Your task to perform on an android device: check google app version Image 0: 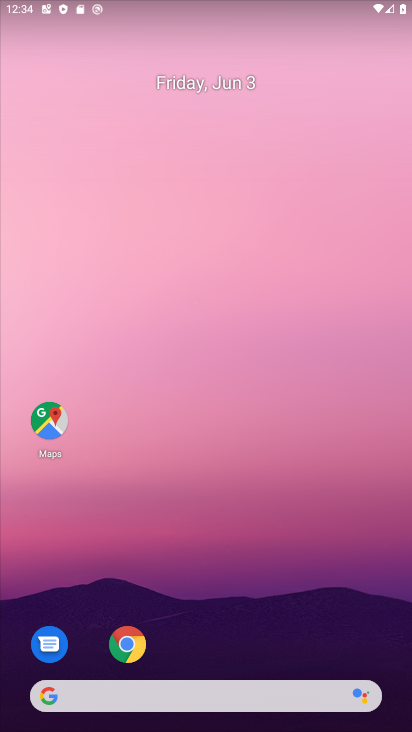
Step 0: drag from (210, 728) to (178, 27)
Your task to perform on an android device: check google app version Image 1: 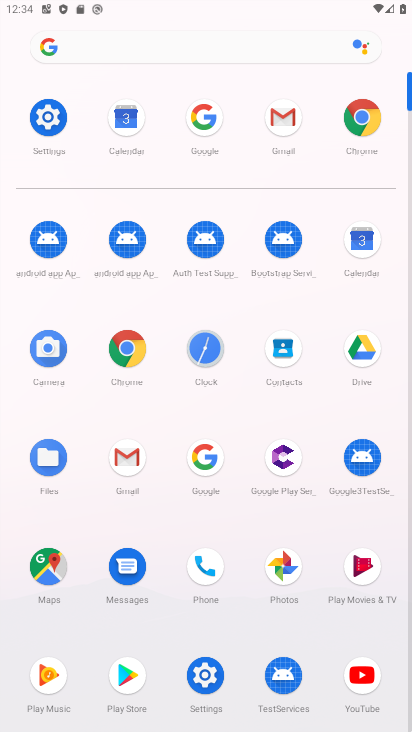
Step 1: click (207, 462)
Your task to perform on an android device: check google app version Image 2: 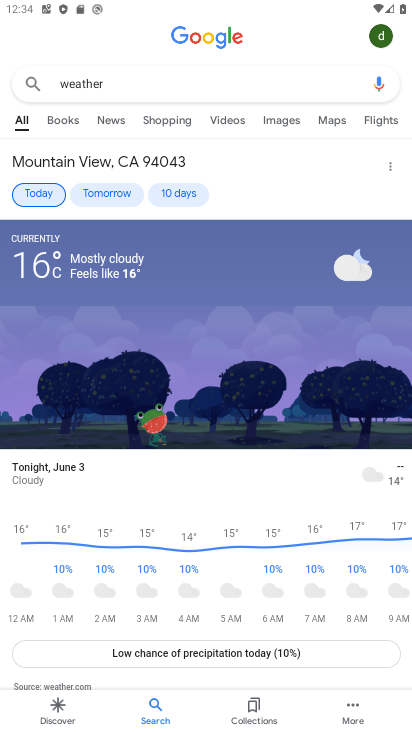
Step 2: click (356, 702)
Your task to perform on an android device: check google app version Image 3: 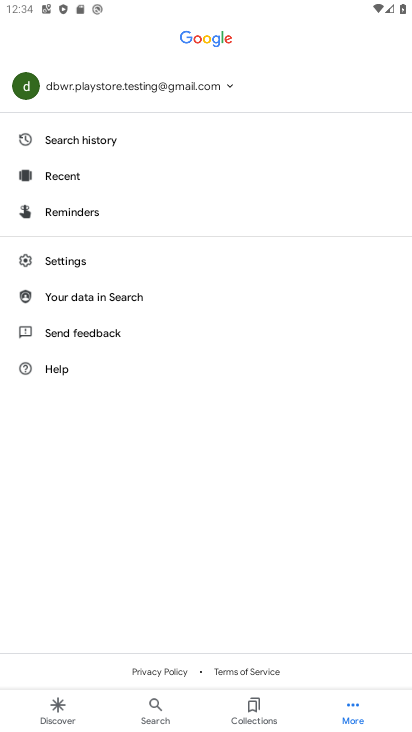
Step 3: click (62, 257)
Your task to perform on an android device: check google app version Image 4: 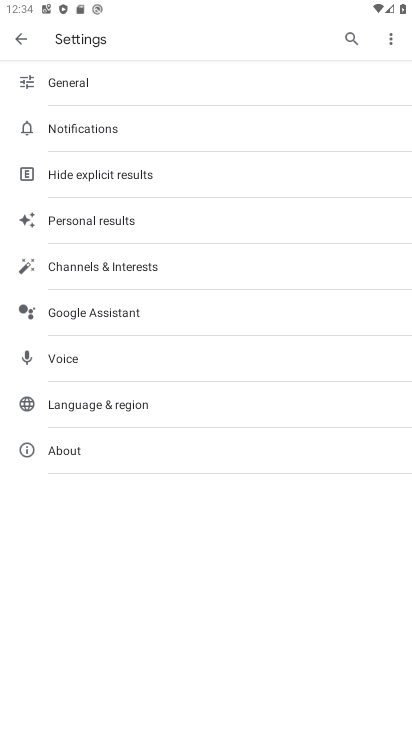
Step 4: click (77, 453)
Your task to perform on an android device: check google app version Image 5: 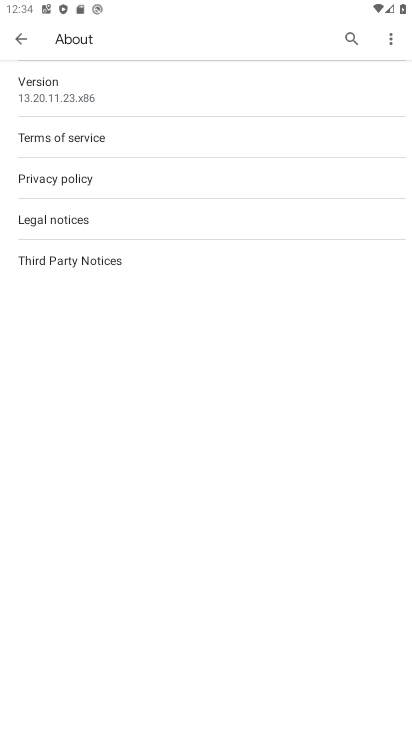
Step 5: task complete